Your task to perform on an android device: Empty the shopping cart on amazon. Add macbook to the cart on amazon Image 0: 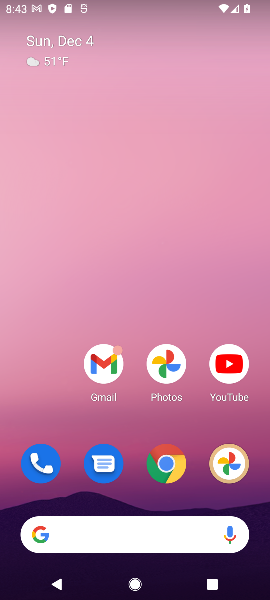
Step 0: click (148, 529)
Your task to perform on an android device: Empty the shopping cart on amazon. Add macbook to the cart on amazon Image 1: 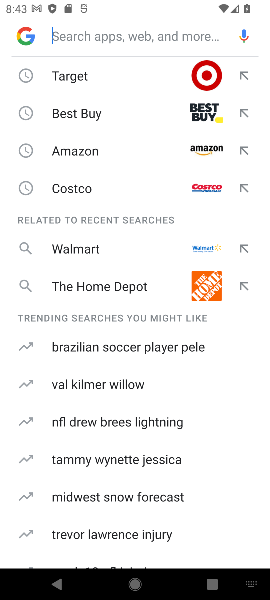
Step 1: click (102, 150)
Your task to perform on an android device: Empty the shopping cart on amazon. Add macbook to the cart on amazon Image 2: 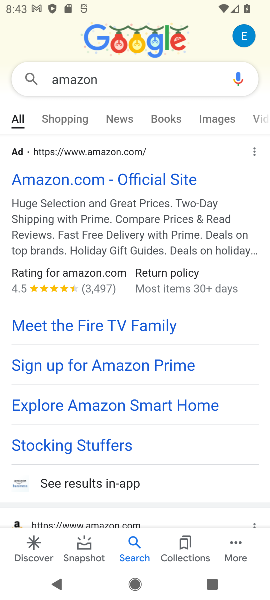
Step 2: click (102, 150)
Your task to perform on an android device: Empty the shopping cart on amazon. Add macbook to the cart on amazon Image 3: 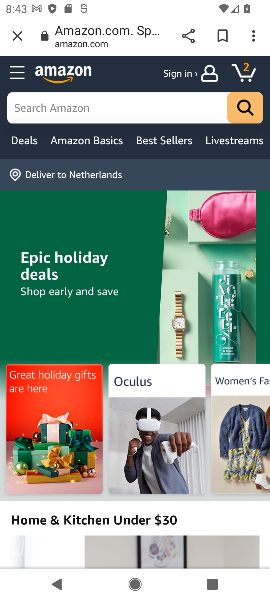
Step 3: task complete